Your task to perform on an android device: turn on notifications settings in the gmail app Image 0: 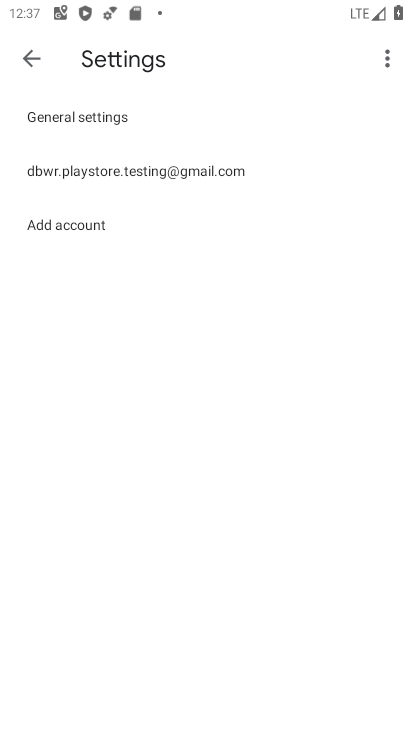
Step 0: press home button
Your task to perform on an android device: turn on notifications settings in the gmail app Image 1: 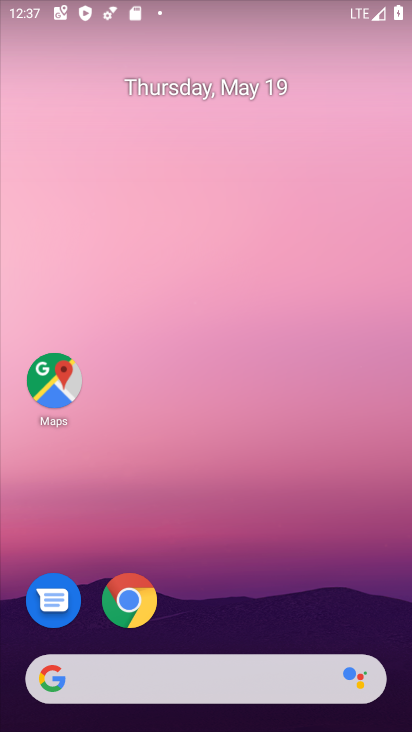
Step 1: drag from (224, 552) to (165, 90)
Your task to perform on an android device: turn on notifications settings in the gmail app Image 2: 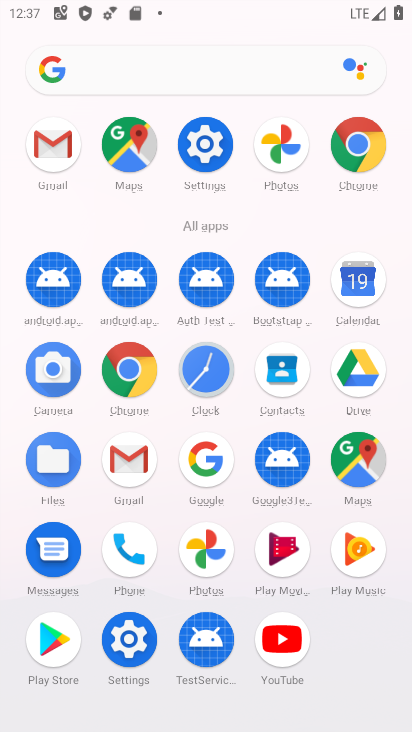
Step 2: click (136, 462)
Your task to perform on an android device: turn on notifications settings in the gmail app Image 3: 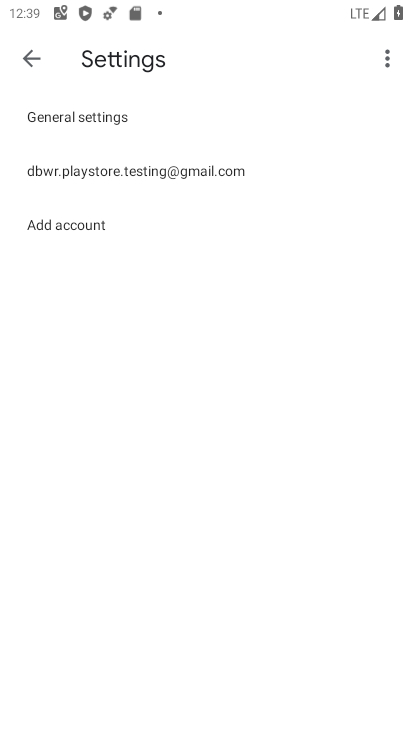
Step 3: click (95, 112)
Your task to perform on an android device: turn on notifications settings in the gmail app Image 4: 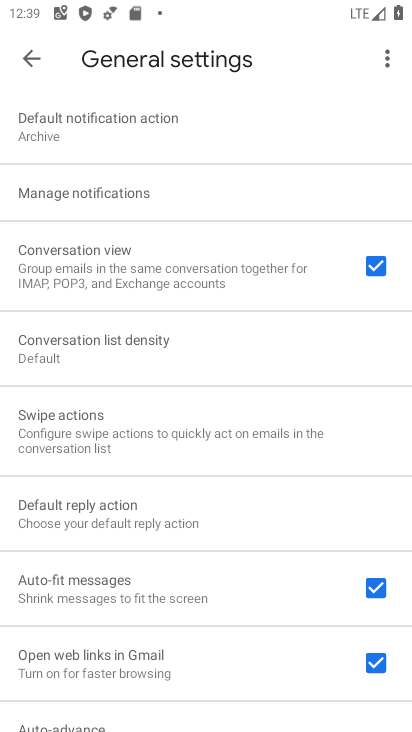
Step 4: click (113, 186)
Your task to perform on an android device: turn on notifications settings in the gmail app Image 5: 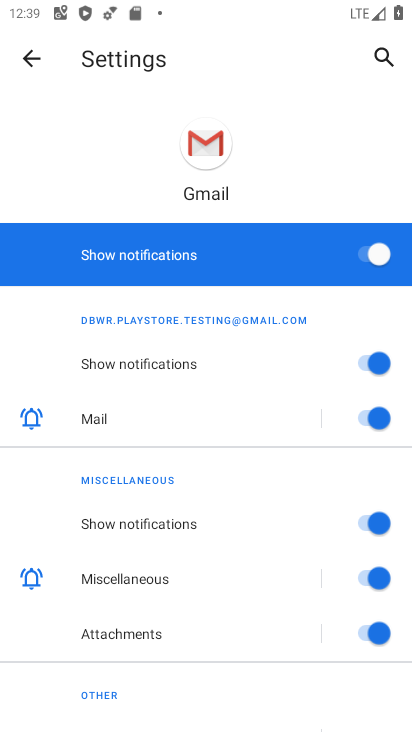
Step 5: task complete